Your task to perform on an android device: turn on improve location accuracy Image 0: 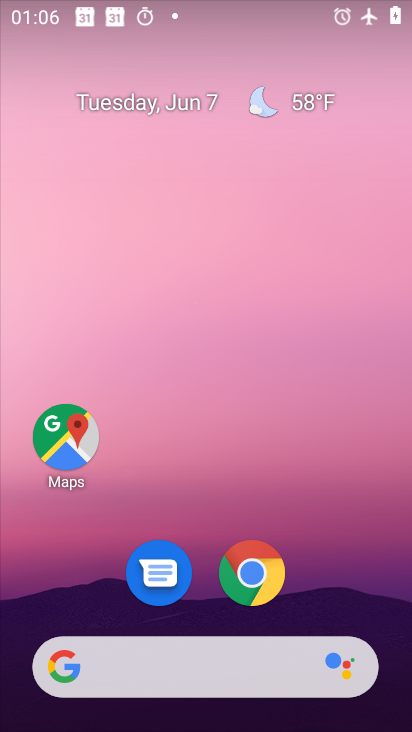
Step 0: press home button
Your task to perform on an android device: turn on improve location accuracy Image 1: 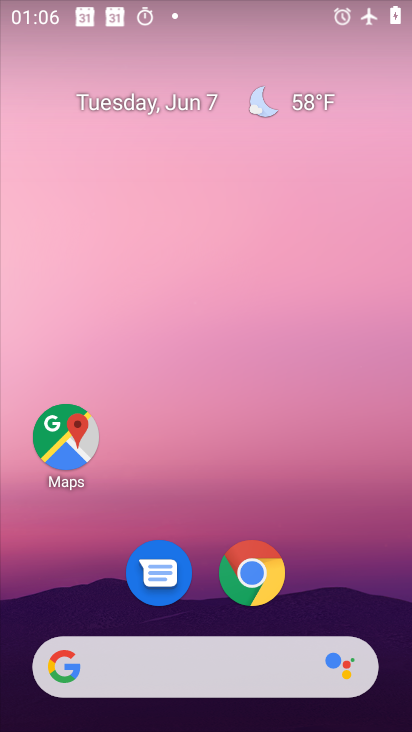
Step 1: click (268, 172)
Your task to perform on an android device: turn on improve location accuracy Image 2: 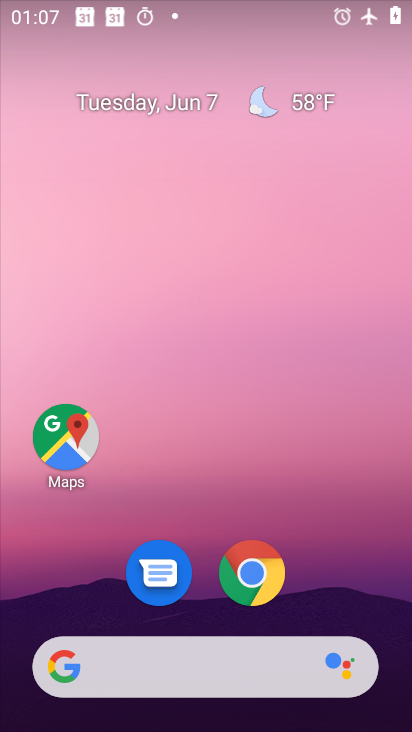
Step 2: drag from (392, 572) to (203, 56)
Your task to perform on an android device: turn on improve location accuracy Image 3: 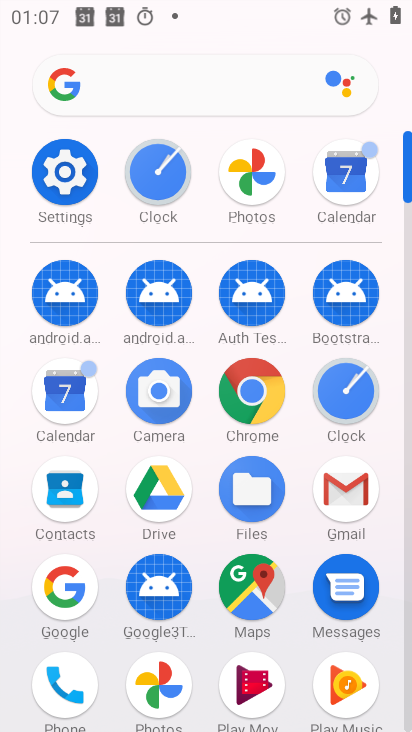
Step 3: click (54, 183)
Your task to perform on an android device: turn on improve location accuracy Image 4: 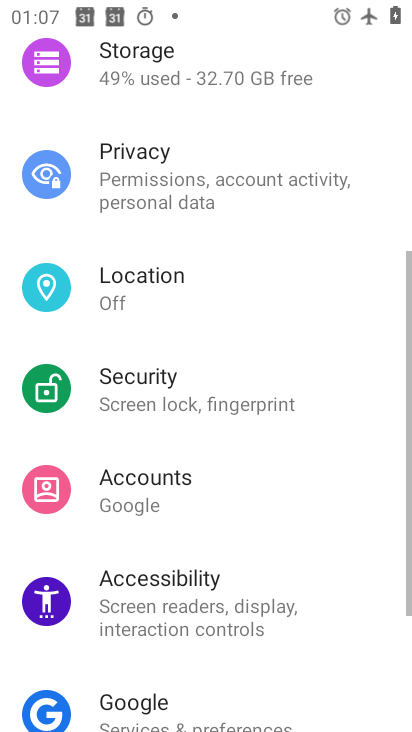
Step 4: drag from (234, 590) to (141, 120)
Your task to perform on an android device: turn on improve location accuracy Image 5: 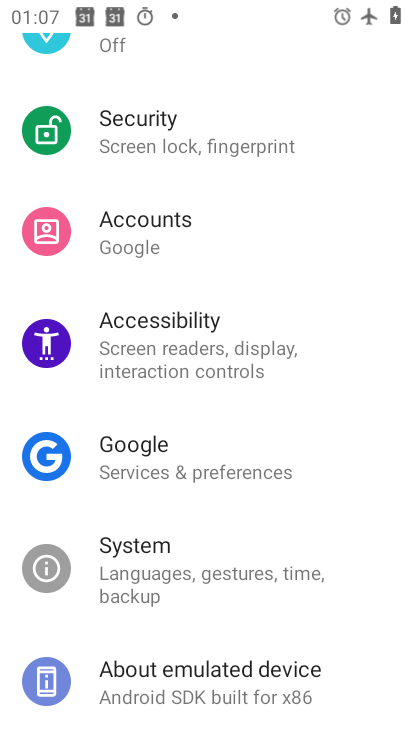
Step 5: drag from (202, 625) to (180, 520)
Your task to perform on an android device: turn on improve location accuracy Image 6: 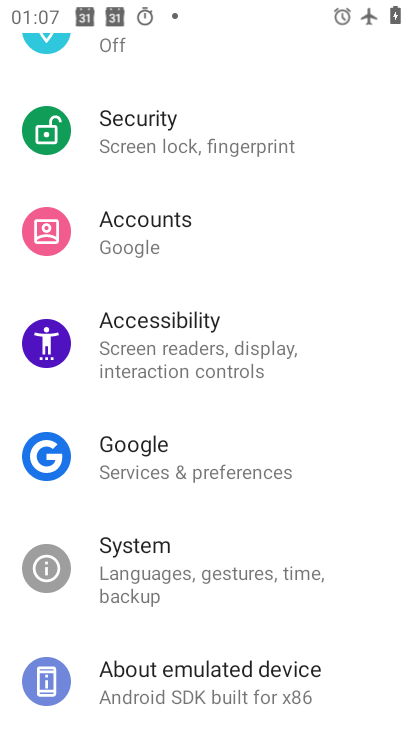
Step 6: click (189, 661)
Your task to perform on an android device: turn on improve location accuracy Image 7: 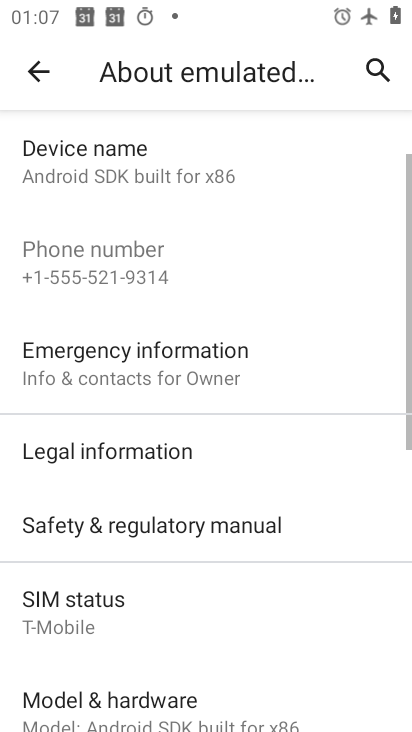
Step 7: click (47, 77)
Your task to perform on an android device: turn on improve location accuracy Image 8: 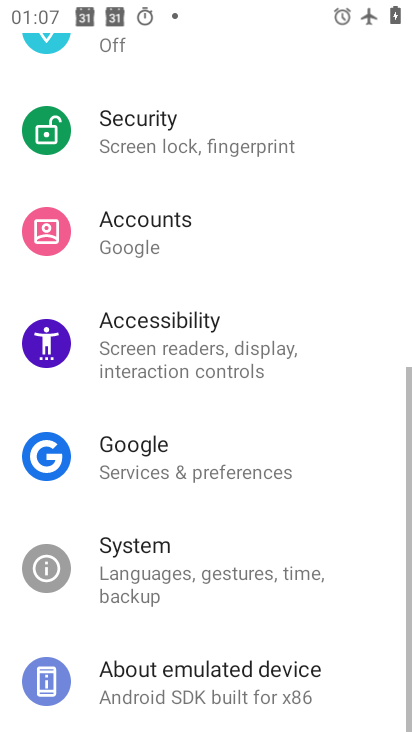
Step 8: drag from (142, 136) to (152, 583)
Your task to perform on an android device: turn on improve location accuracy Image 9: 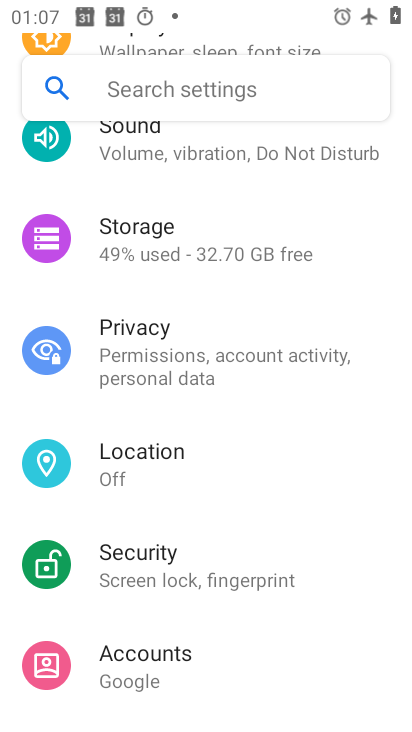
Step 9: drag from (142, 261) to (219, 611)
Your task to perform on an android device: turn on improve location accuracy Image 10: 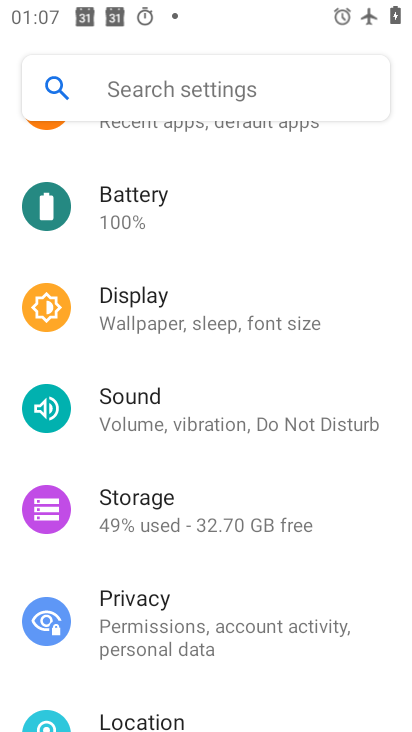
Step 10: drag from (166, 590) to (177, 223)
Your task to perform on an android device: turn on improve location accuracy Image 11: 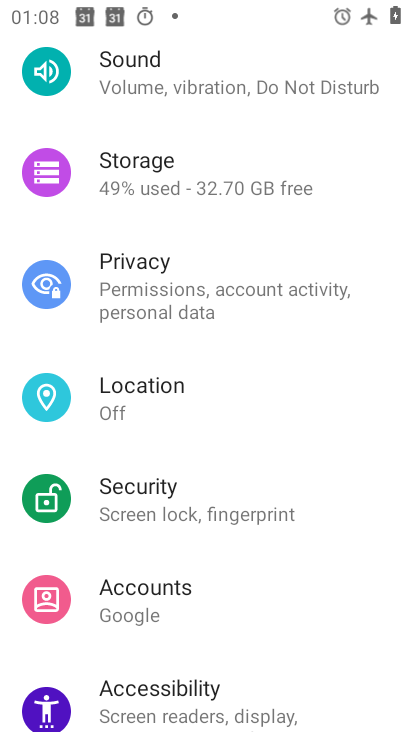
Step 11: drag from (281, 592) to (227, 283)
Your task to perform on an android device: turn on improve location accuracy Image 12: 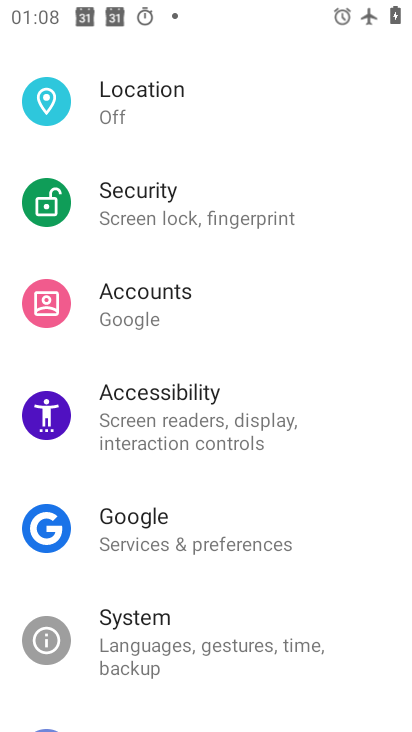
Step 12: click (165, 124)
Your task to perform on an android device: turn on improve location accuracy Image 13: 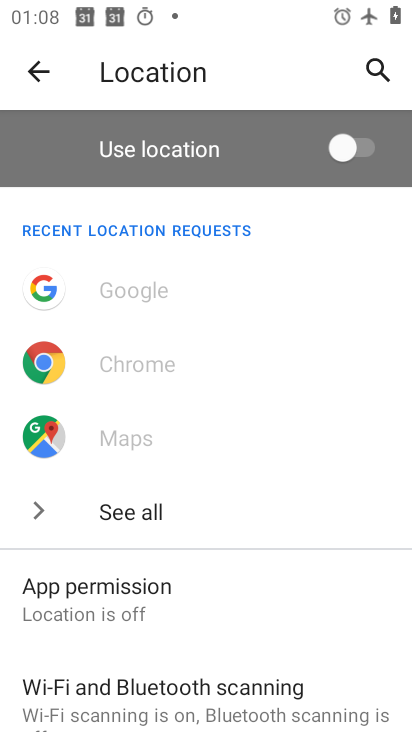
Step 13: drag from (238, 551) to (211, 107)
Your task to perform on an android device: turn on improve location accuracy Image 14: 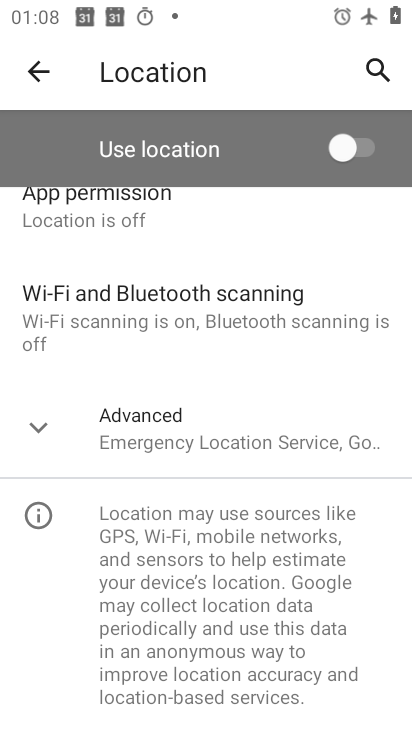
Step 14: click (149, 411)
Your task to perform on an android device: turn on improve location accuracy Image 15: 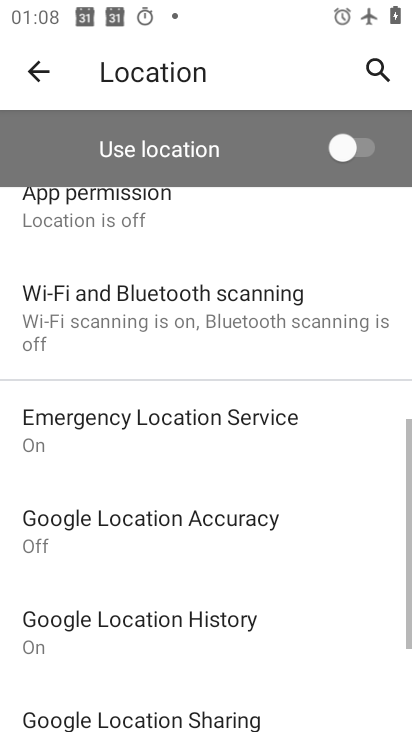
Step 15: click (203, 528)
Your task to perform on an android device: turn on improve location accuracy Image 16: 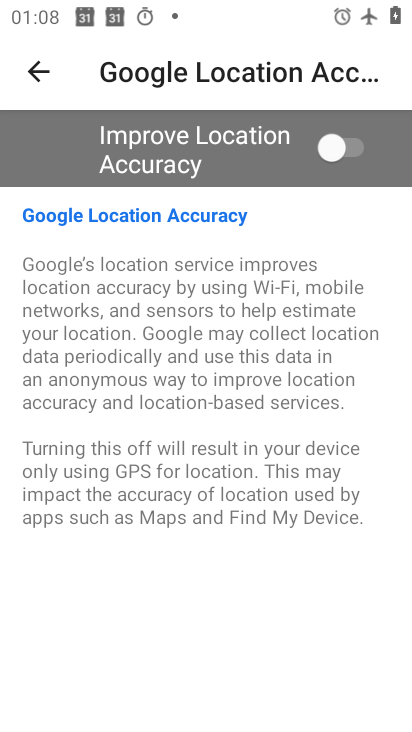
Step 16: click (182, 154)
Your task to perform on an android device: turn on improve location accuracy Image 17: 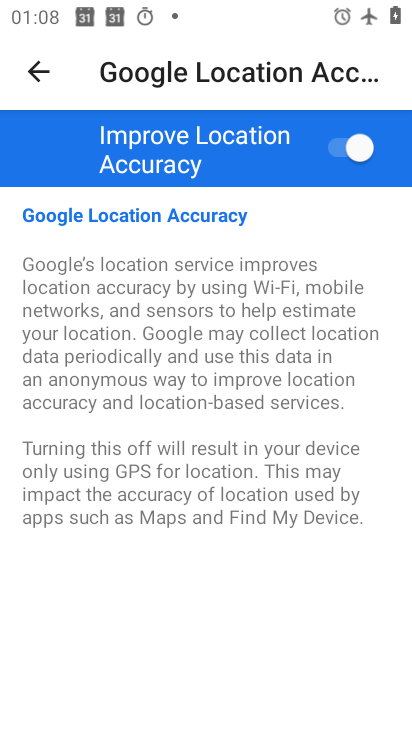
Step 17: task complete